Your task to perform on an android device: turn on the 24-hour format for clock Image 0: 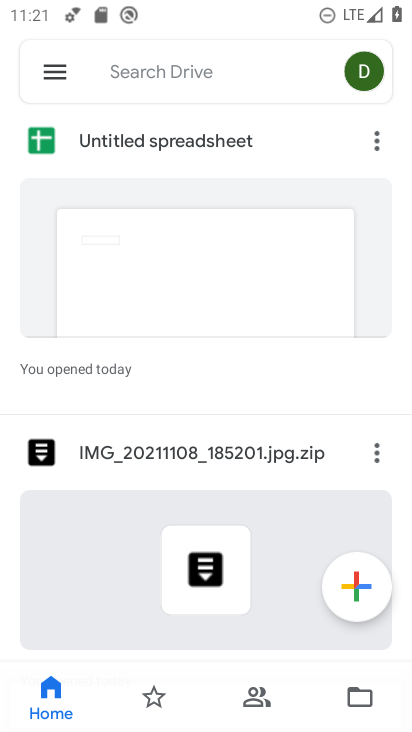
Step 0: press home button
Your task to perform on an android device: turn on the 24-hour format for clock Image 1: 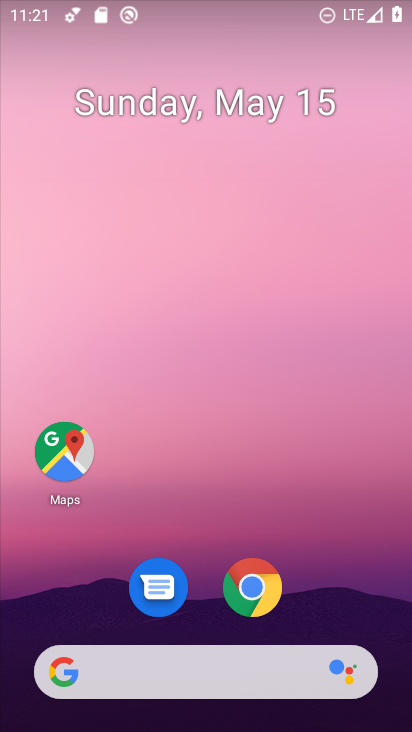
Step 1: drag from (196, 607) to (233, 279)
Your task to perform on an android device: turn on the 24-hour format for clock Image 2: 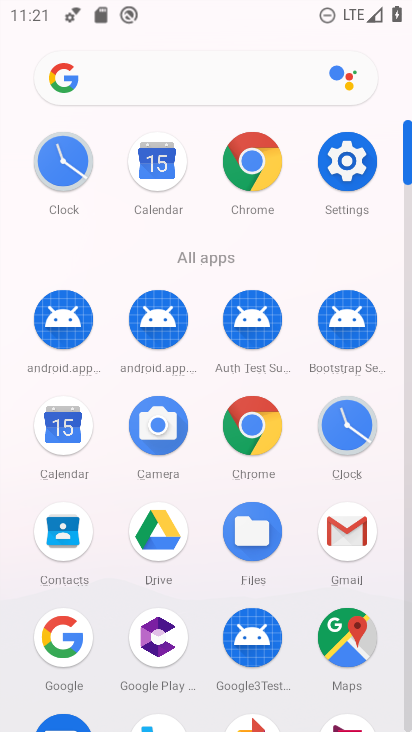
Step 2: click (353, 400)
Your task to perform on an android device: turn on the 24-hour format for clock Image 3: 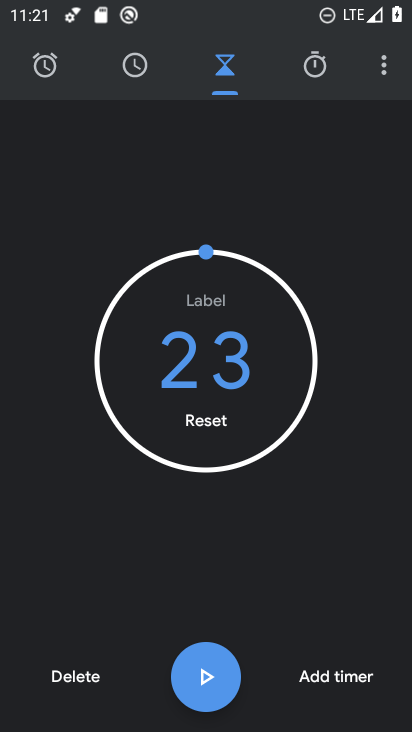
Step 3: click (383, 63)
Your task to perform on an android device: turn on the 24-hour format for clock Image 4: 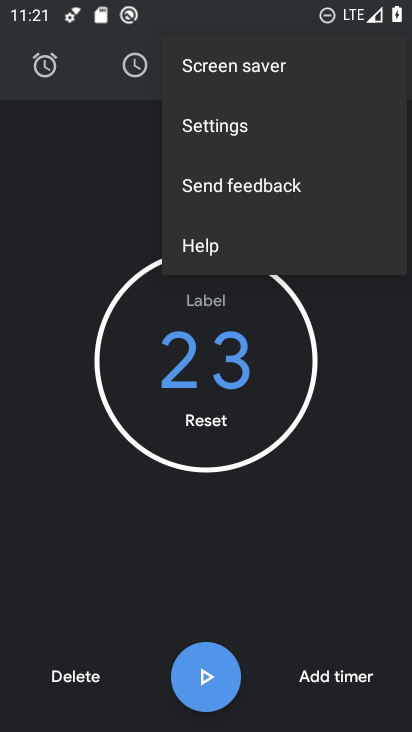
Step 4: click (257, 132)
Your task to perform on an android device: turn on the 24-hour format for clock Image 5: 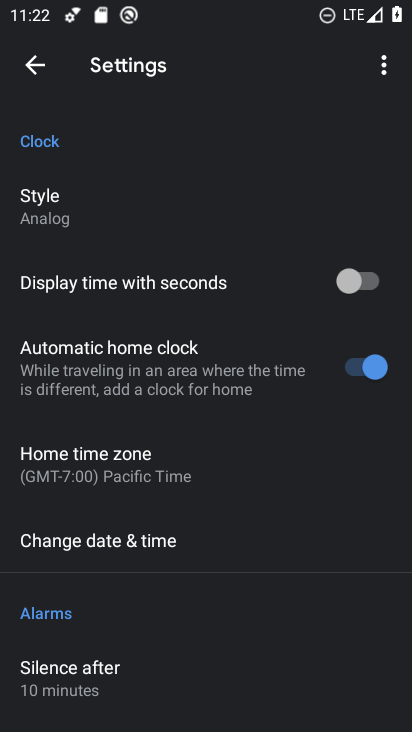
Step 5: drag from (227, 634) to (269, 352)
Your task to perform on an android device: turn on the 24-hour format for clock Image 6: 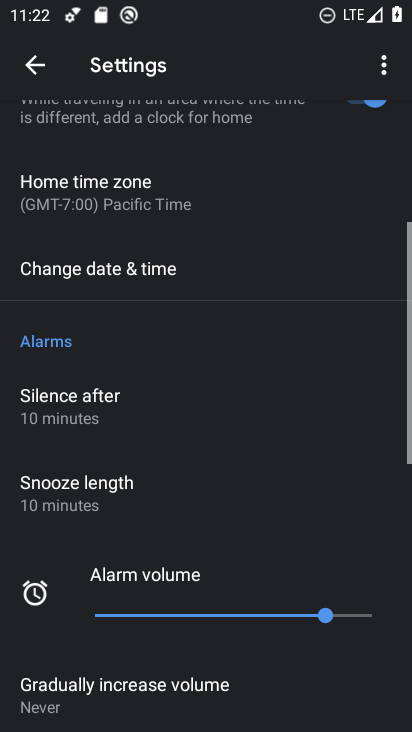
Step 6: drag from (173, 583) to (233, 336)
Your task to perform on an android device: turn on the 24-hour format for clock Image 7: 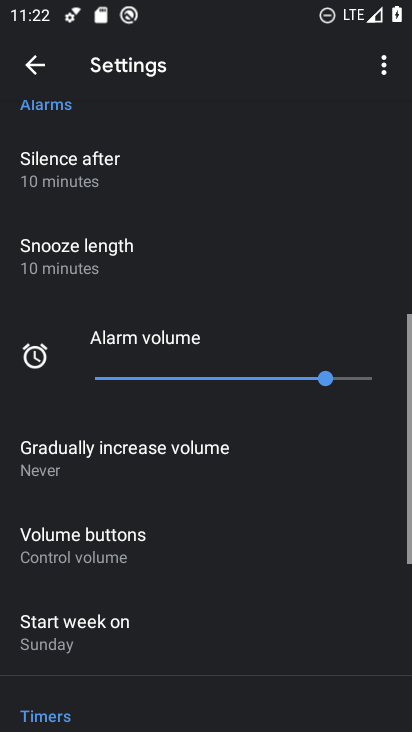
Step 7: drag from (191, 610) to (234, 340)
Your task to perform on an android device: turn on the 24-hour format for clock Image 8: 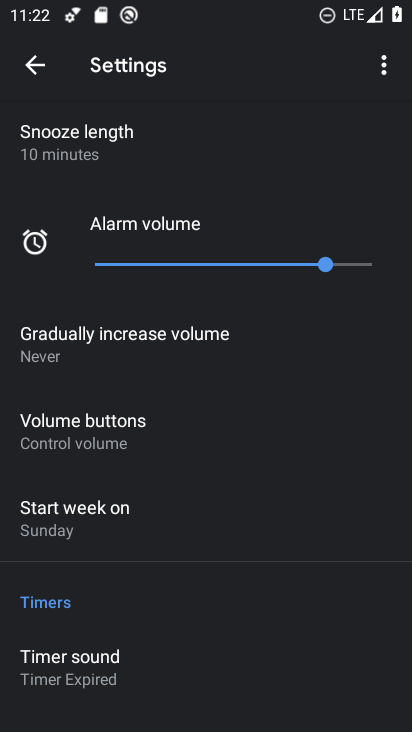
Step 8: drag from (183, 599) to (211, 378)
Your task to perform on an android device: turn on the 24-hour format for clock Image 9: 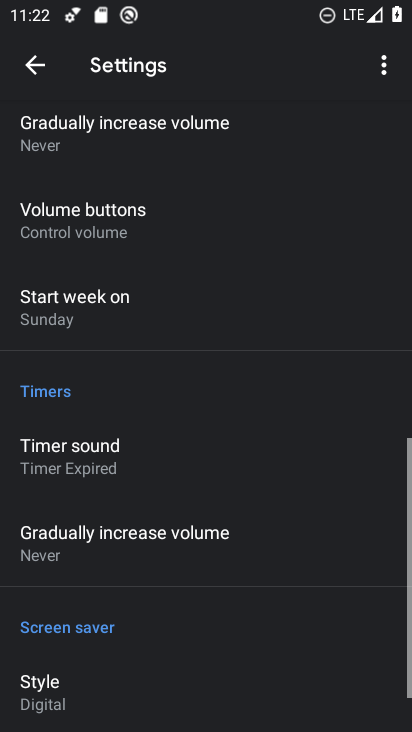
Step 9: drag from (234, 382) to (215, 604)
Your task to perform on an android device: turn on the 24-hour format for clock Image 10: 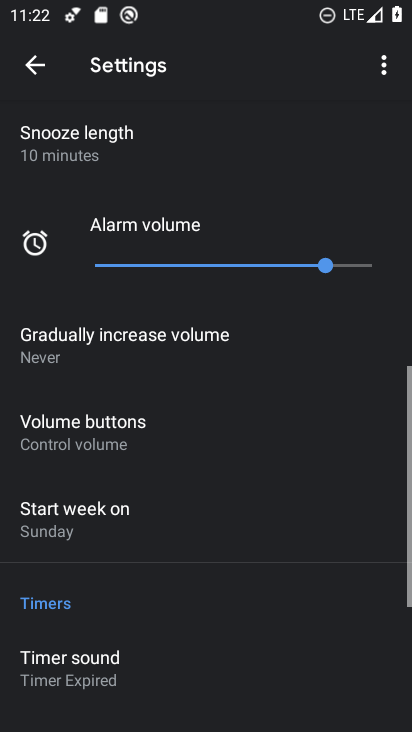
Step 10: drag from (203, 245) to (203, 525)
Your task to perform on an android device: turn on the 24-hour format for clock Image 11: 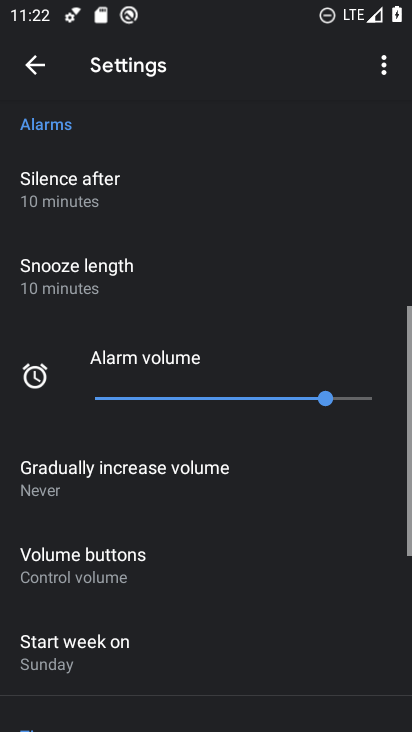
Step 11: drag from (203, 350) to (203, 600)
Your task to perform on an android device: turn on the 24-hour format for clock Image 12: 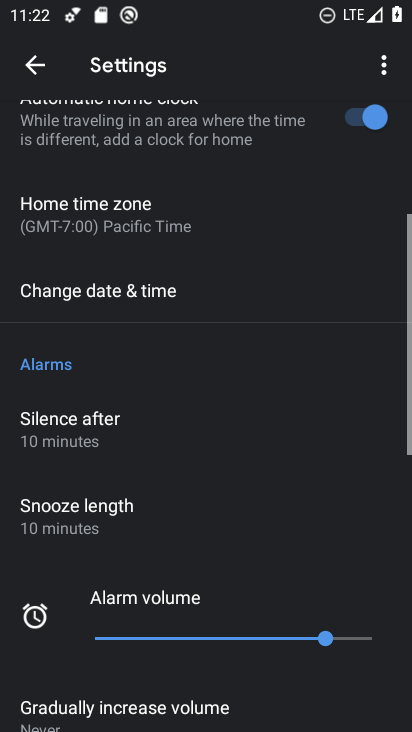
Step 12: drag from (225, 239) to (231, 510)
Your task to perform on an android device: turn on the 24-hour format for clock Image 13: 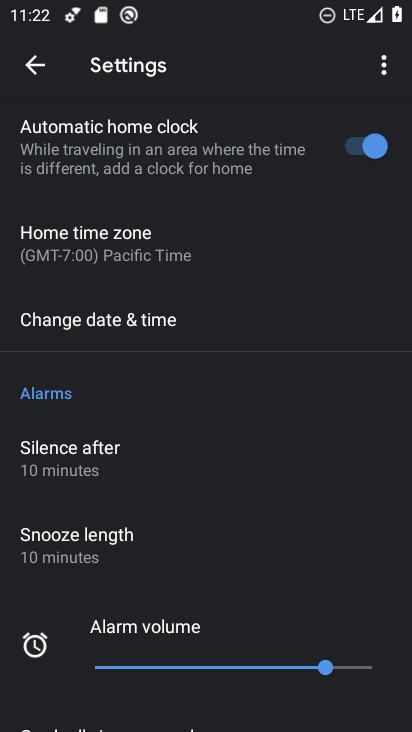
Step 13: click (224, 312)
Your task to perform on an android device: turn on the 24-hour format for clock Image 14: 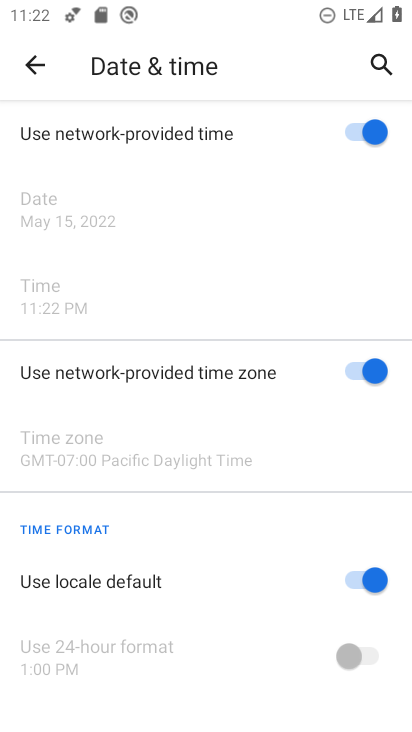
Step 14: drag from (213, 662) to (249, 330)
Your task to perform on an android device: turn on the 24-hour format for clock Image 15: 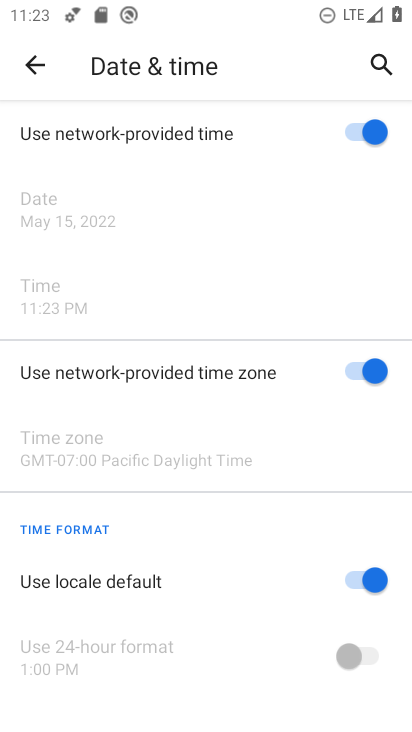
Step 15: click (343, 580)
Your task to perform on an android device: turn on the 24-hour format for clock Image 16: 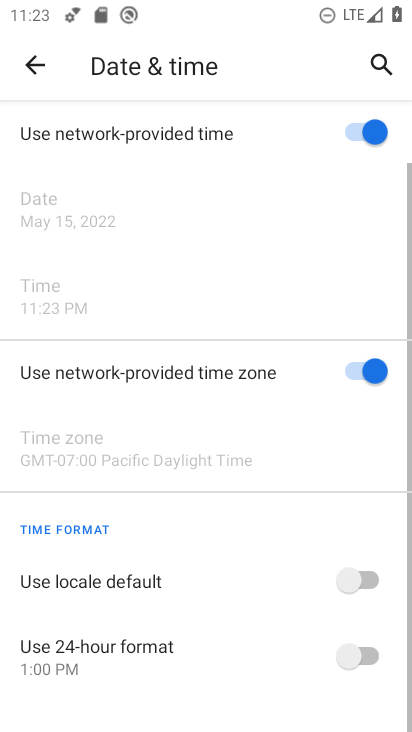
Step 16: click (365, 649)
Your task to perform on an android device: turn on the 24-hour format for clock Image 17: 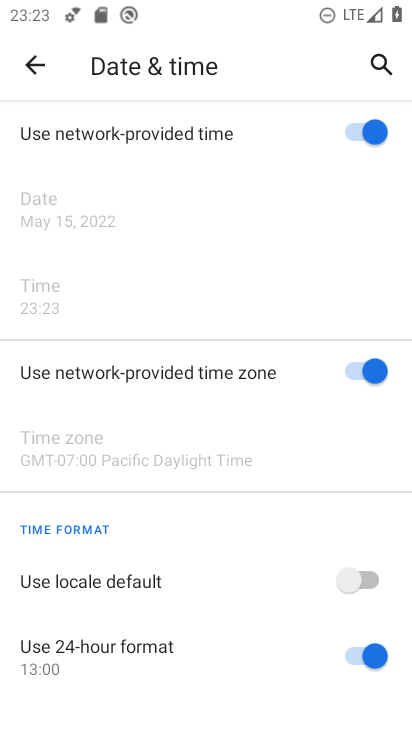
Step 17: task complete